Your task to perform on an android device: toggle priority inbox in the gmail app Image 0: 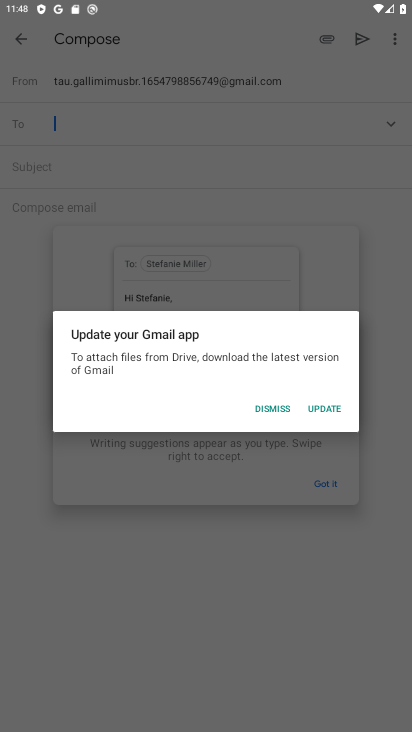
Step 0: press home button
Your task to perform on an android device: toggle priority inbox in the gmail app Image 1: 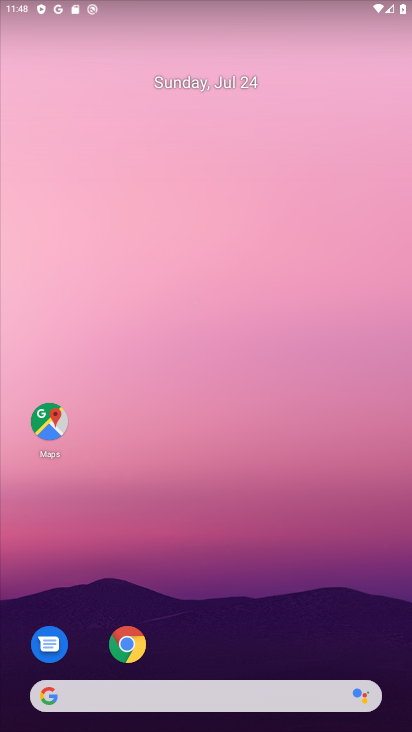
Step 1: drag from (193, 668) to (248, 187)
Your task to perform on an android device: toggle priority inbox in the gmail app Image 2: 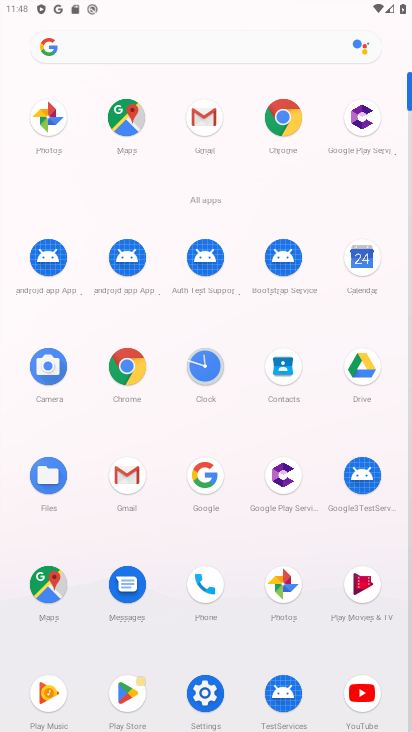
Step 2: click (199, 126)
Your task to perform on an android device: toggle priority inbox in the gmail app Image 3: 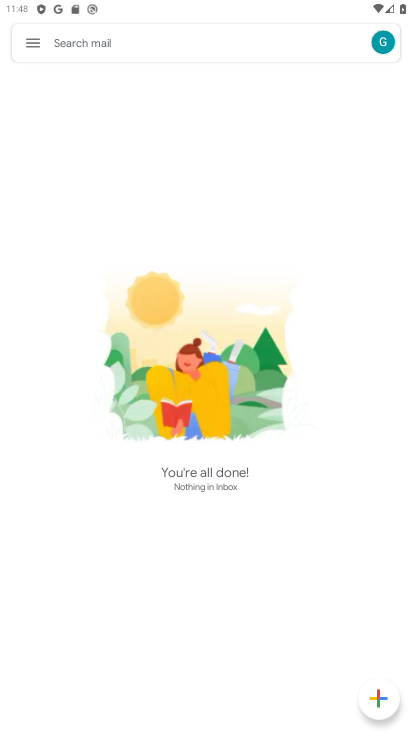
Step 3: click (34, 52)
Your task to perform on an android device: toggle priority inbox in the gmail app Image 4: 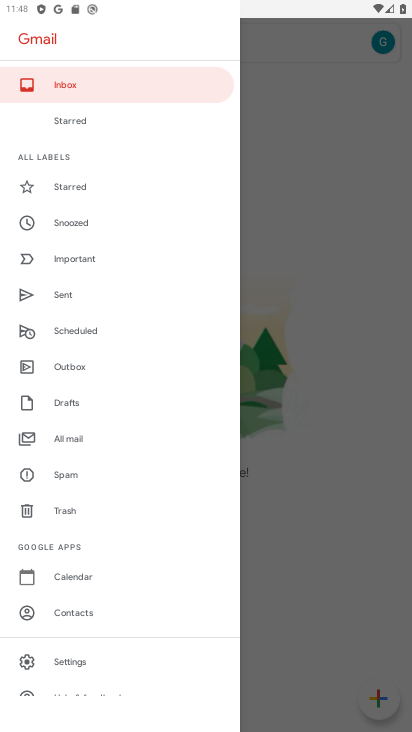
Step 4: click (73, 660)
Your task to perform on an android device: toggle priority inbox in the gmail app Image 5: 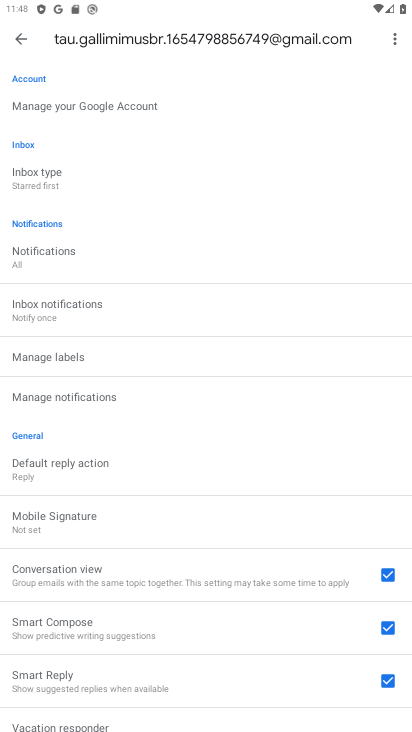
Step 5: click (107, 187)
Your task to perform on an android device: toggle priority inbox in the gmail app Image 6: 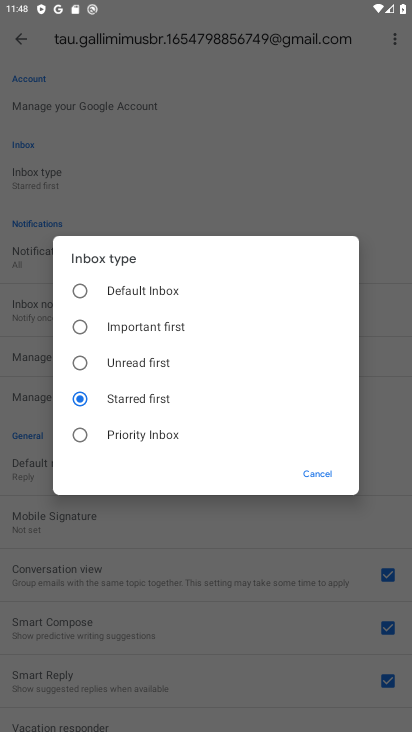
Step 6: click (152, 356)
Your task to perform on an android device: toggle priority inbox in the gmail app Image 7: 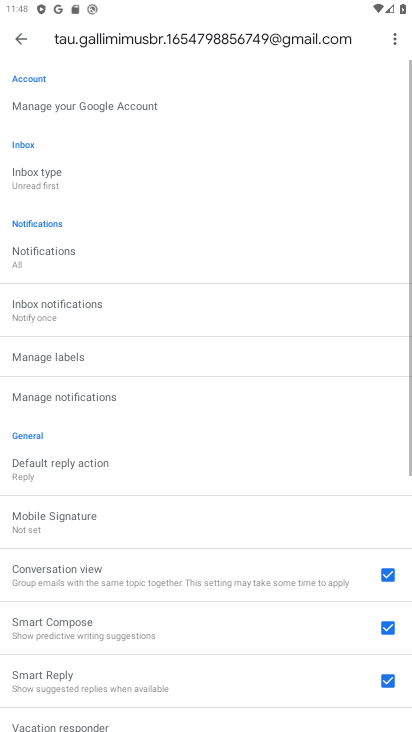
Step 7: task complete